Your task to perform on an android device: remove spam from my inbox in the gmail app Image 0: 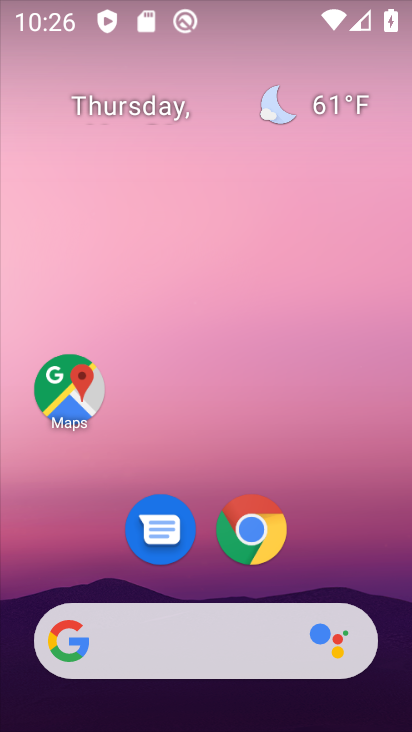
Step 0: drag from (333, 551) to (325, 50)
Your task to perform on an android device: remove spam from my inbox in the gmail app Image 1: 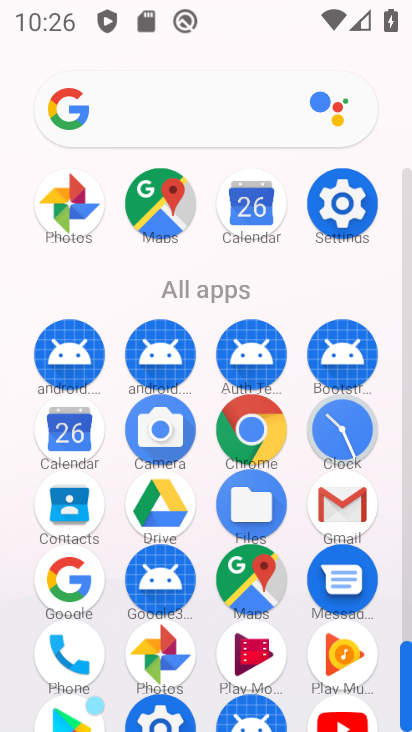
Step 1: click (340, 501)
Your task to perform on an android device: remove spam from my inbox in the gmail app Image 2: 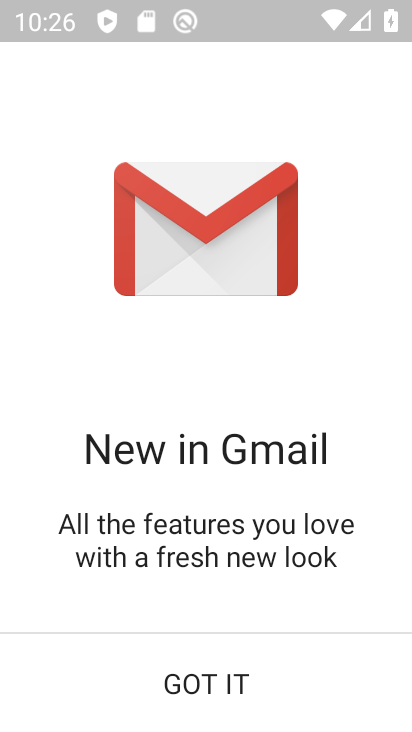
Step 2: click (209, 689)
Your task to perform on an android device: remove spam from my inbox in the gmail app Image 3: 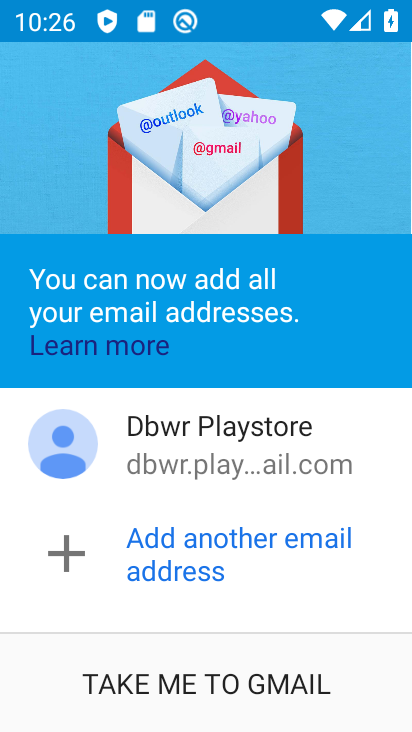
Step 3: click (209, 689)
Your task to perform on an android device: remove spam from my inbox in the gmail app Image 4: 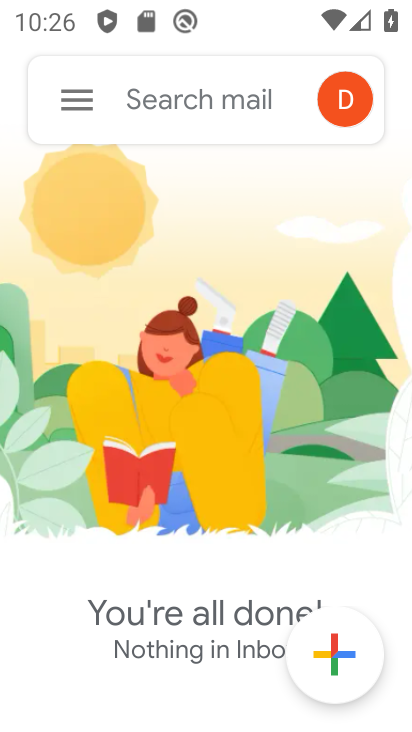
Step 4: click (57, 91)
Your task to perform on an android device: remove spam from my inbox in the gmail app Image 5: 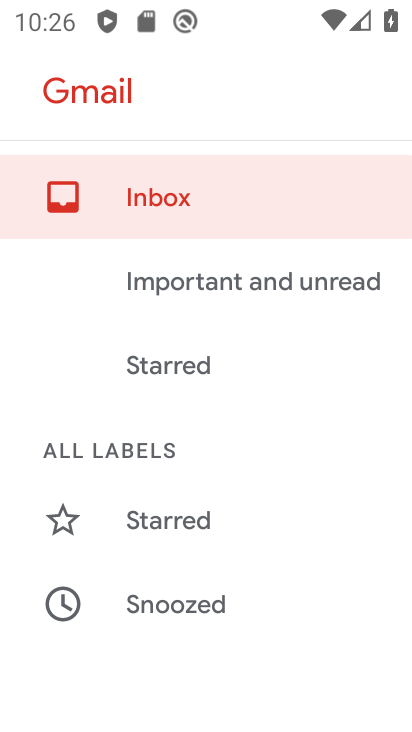
Step 5: drag from (157, 591) to (141, 226)
Your task to perform on an android device: remove spam from my inbox in the gmail app Image 6: 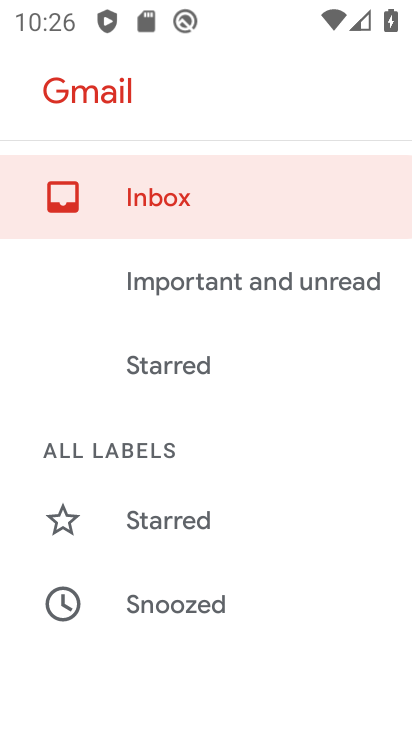
Step 6: drag from (220, 593) to (237, 157)
Your task to perform on an android device: remove spam from my inbox in the gmail app Image 7: 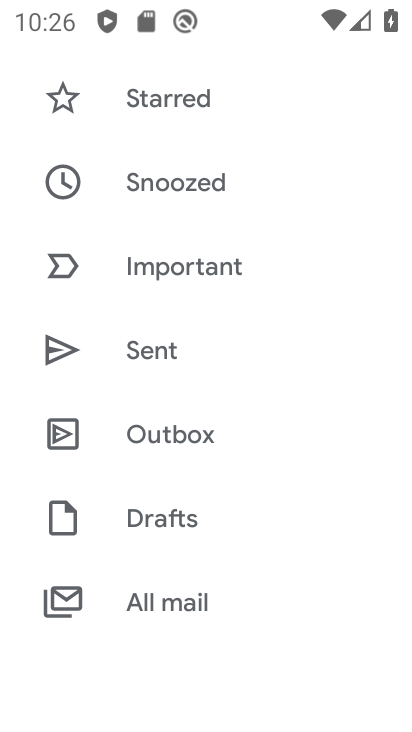
Step 7: drag from (226, 580) to (232, 216)
Your task to perform on an android device: remove spam from my inbox in the gmail app Image 8: 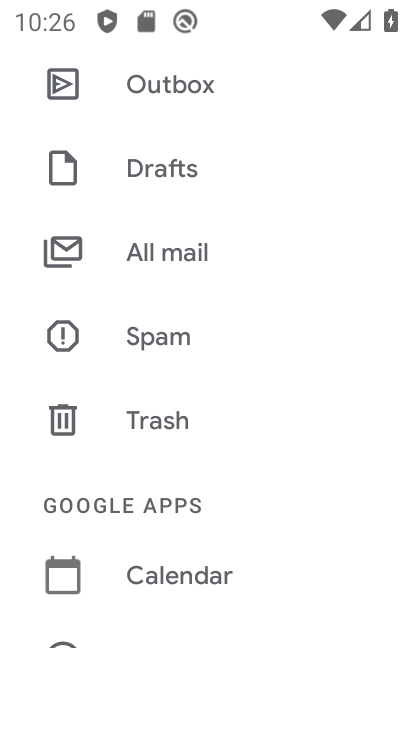
Step 8: click (188, 325)
Your task to perform on an android device: remove spam from my inbox in the gmail app Image 9: 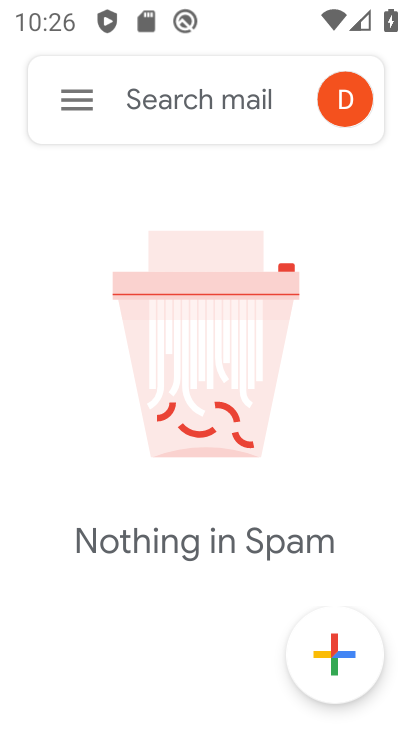
Step 9: task complete